Your task to perform on an android device: allow notifications from all sites in the chrome app Image 0: 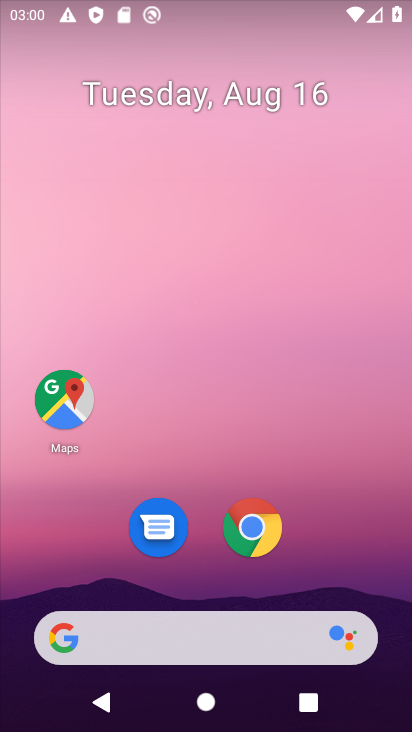
Step 0: drag from (205, 585) to (231, 0)
Your task to perform on an android device: allow notifications from all sites in the chrome app Image 1: 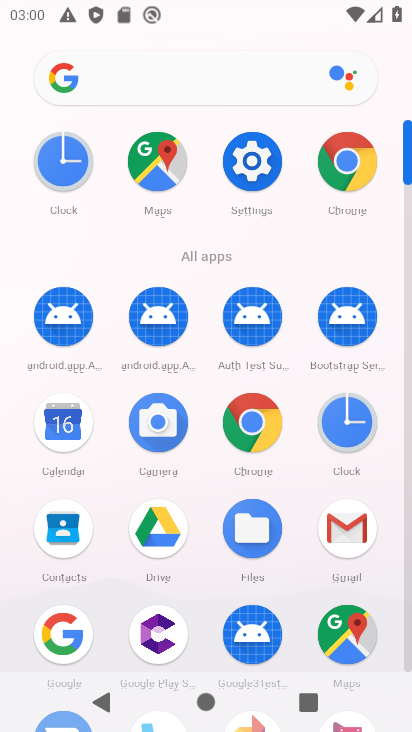
Step 1: click (344, 157)
Your task to perform on an android device: allow notifications from all sites in the chrome app Image 2: 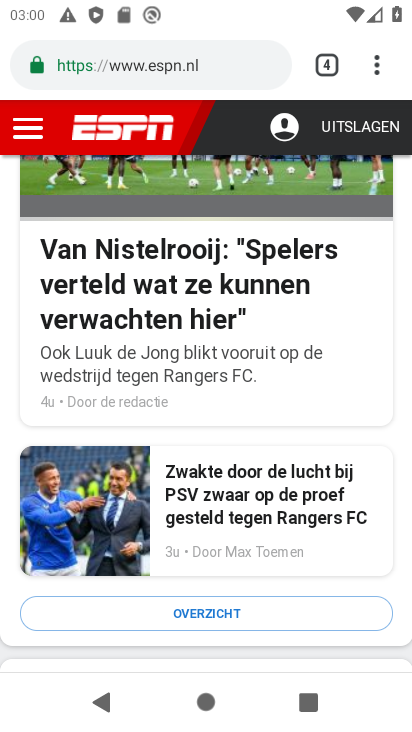
Step 2: click (379, 69)
Your task to perform on an android device: allow notifications from all sites in the chrome app Image 3: 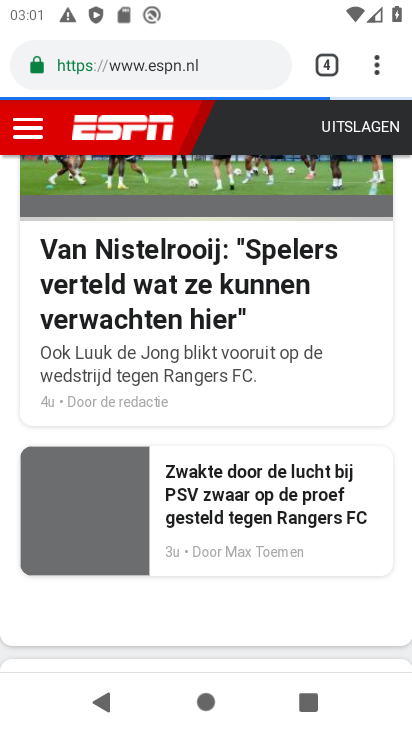
Step 3: click (379, 73)
Your task to perform on an android device: allow notifications from all sites in the chrome app Image 4: 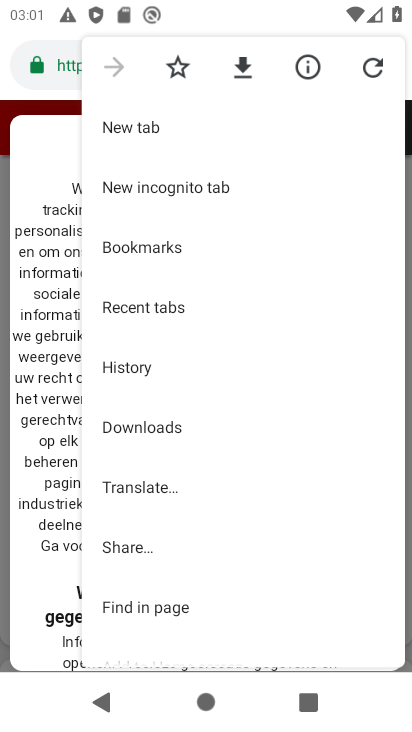
Step 4: drag from (218, 586) to (236, 191)
Your task to perform on an android device: allow notifications from all sites in the chrome app Image 5: 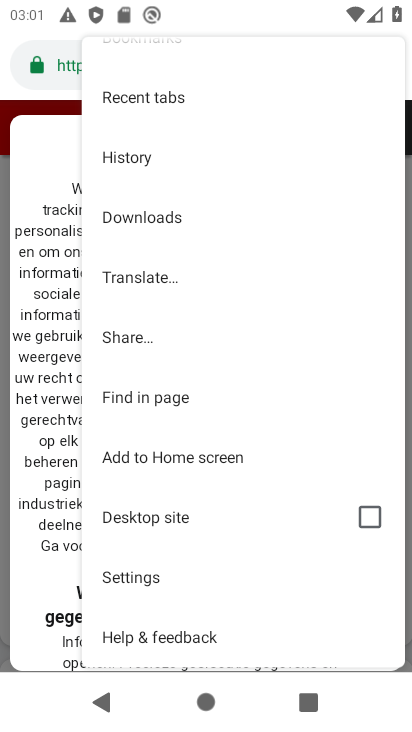
Step 5: click (173, 583)
Your task to perform on an android device: allow notifications from all sites in the chrome app Image 6: 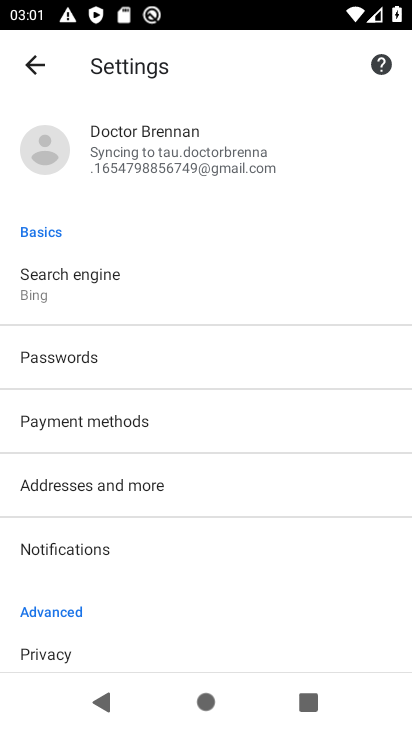
Step 6: drag from (122, 640) to (165, 156)
Your task to perform on an android device: allow notifications from all sites in the chrome app Image 7: 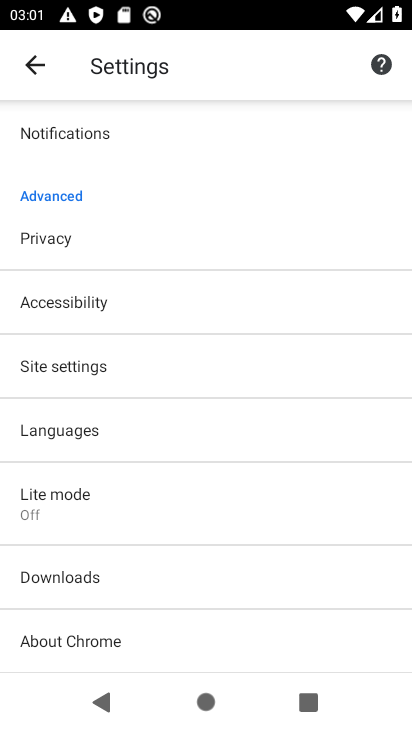
Step 7: click (108, 362)
Your task to perform on an android device: allow notifications from all sites in the chrome app Image 8: 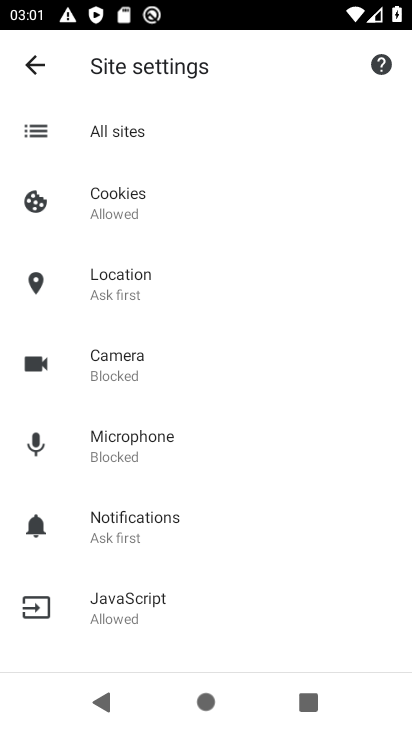
Step 8: task complete